Your task to perform on an android device: Go to network settings Image 0: 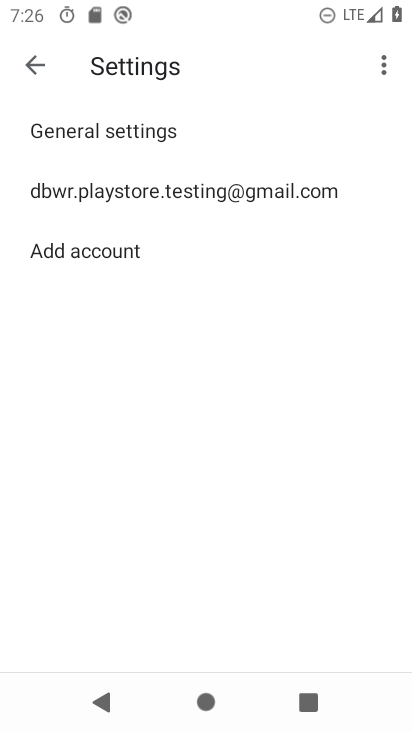
Step 0: press home button
Your task to perform on an android device: Go to network settings Image 1: 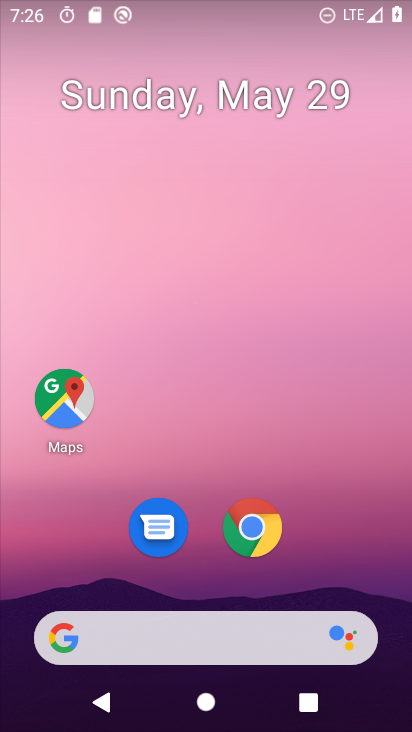
Step 1: drag from (382, 664) to (222, 2)
Your task to perform on an android device: Go to network settings Image 2: 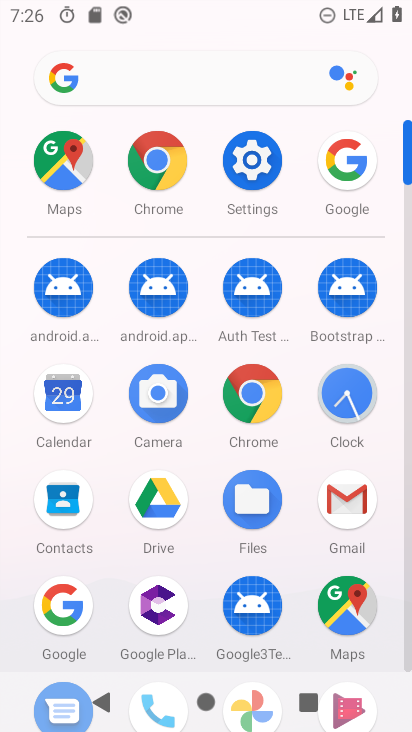
Step 2: click (264, 150)
Your task to perform on an android device: Go to network settings Image 3: 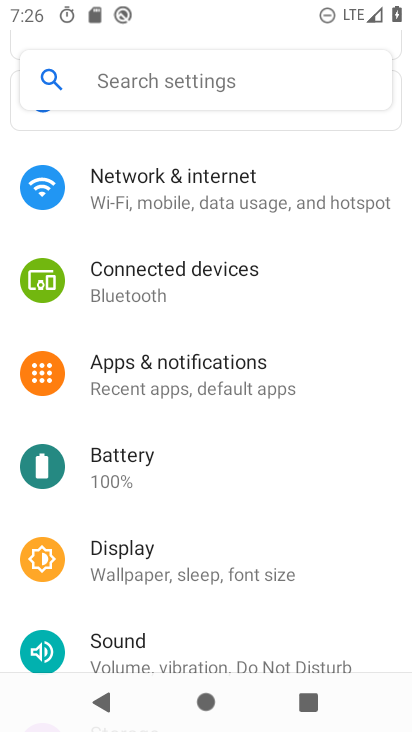
Step 3: click (199, 198)
Your task to perform on an android device: Go to network settings Image 4: 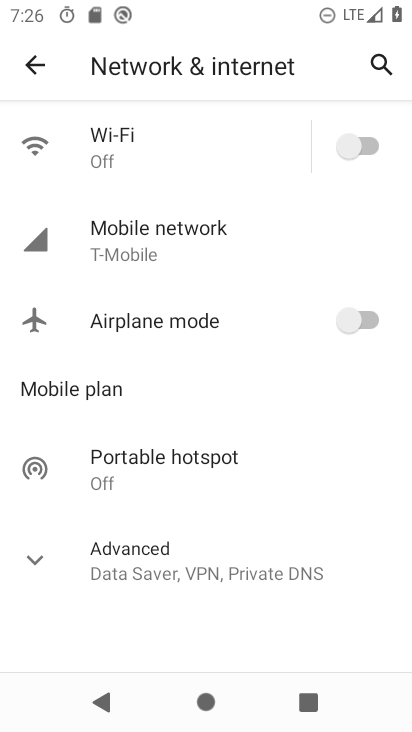
Step 4: task complete